Your task to perform on an android device: turn on javascript in the chrome app Image 0: 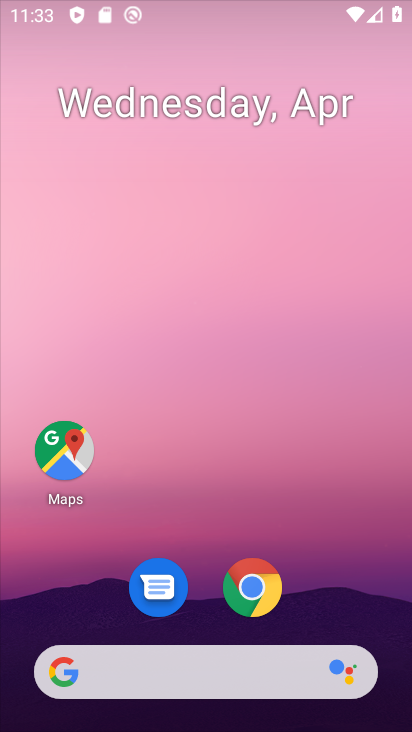
Step 0: drag from (301, 575) to (224, 86)
Your task to perform on an android device: turn on javascript in the chrome app Image 1: 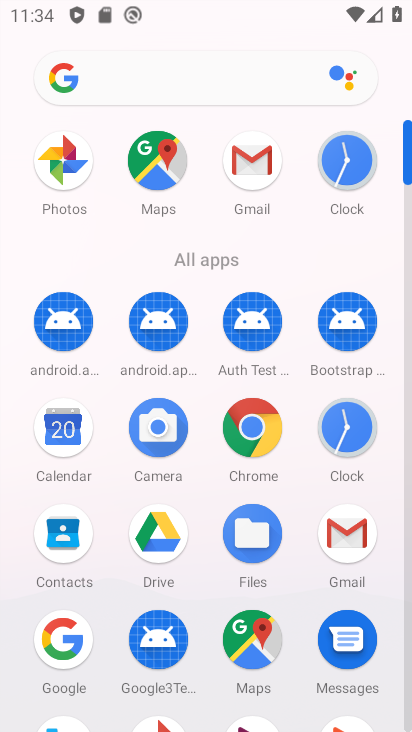
Step 1: click (250, 419)
Your task to perform on an android device: turn on javascript in the chrome app Image 2: 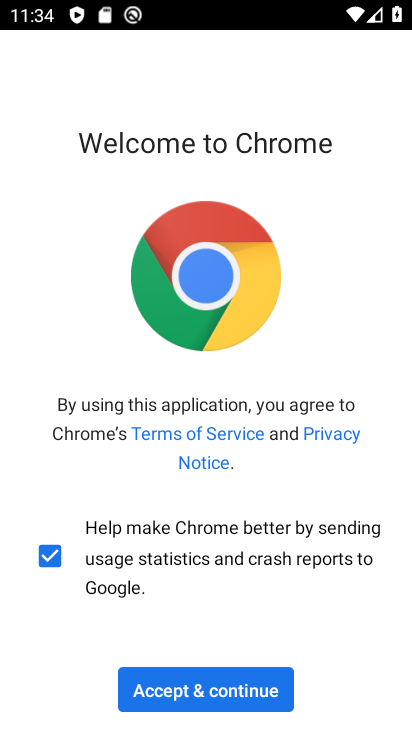
Step 2: click (261, 688)
Your task to perform on an android device: turn on javascript in the chrome app Image 3: 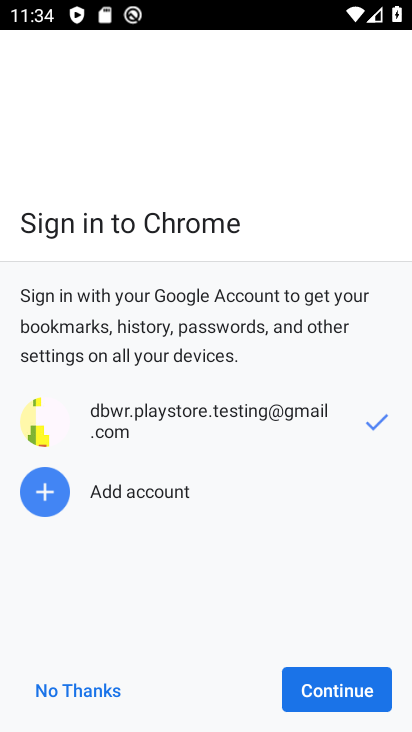
Step 3: click (340, 687)
Your task to perform on an android device: turn on javascript in the chrome app Image 4: 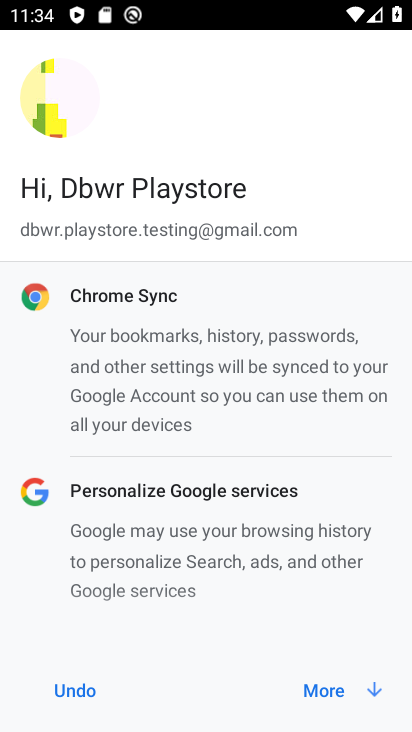
Step 4: click (340, 687)
Your task to perform on an android device: turn on javascript in the chrome app Image 5: 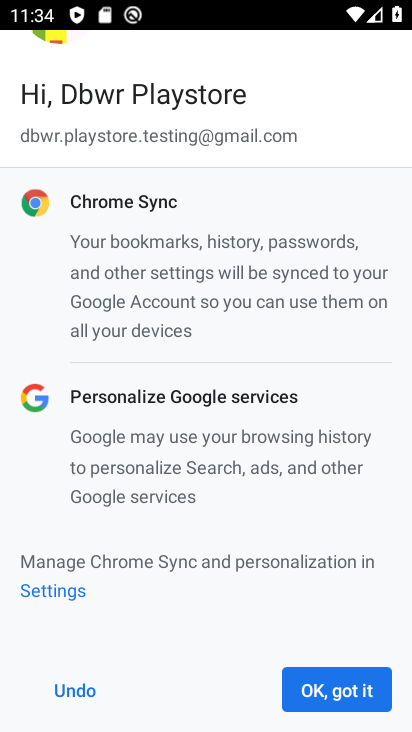
Step 5: click (340, 687)
Your task to perform on an android device: turn on javascript in the chrome app Image 6: 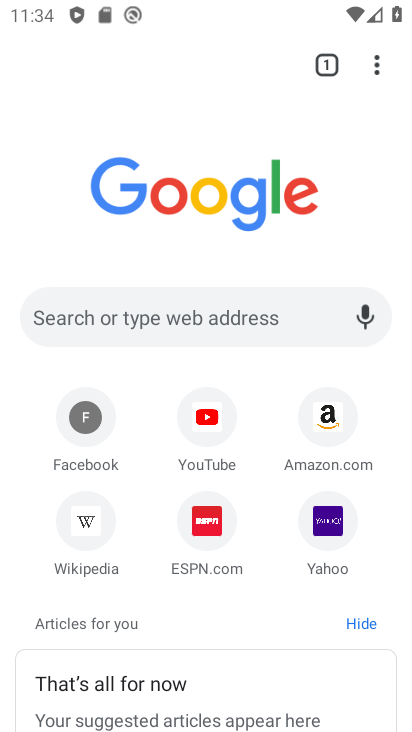
Step 6: click (382, 66)
Your task to perform on an android device: turn on javascript in the chrome app Image 7: 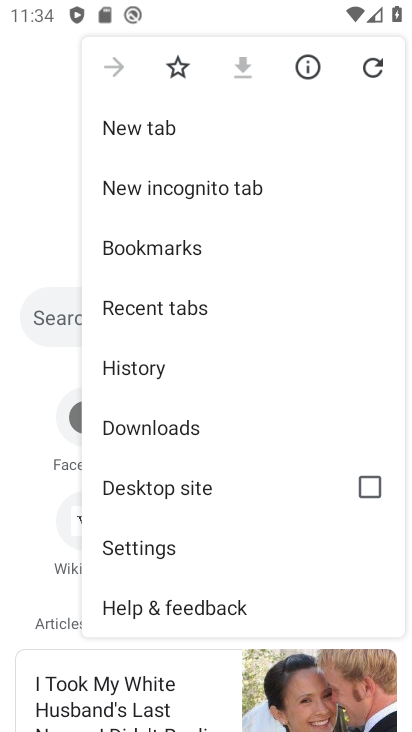
Step 7: drag from (238, 492) to (272, 328)
Your task to perform on an android device: turn on javascript in the chrome app Image 8: 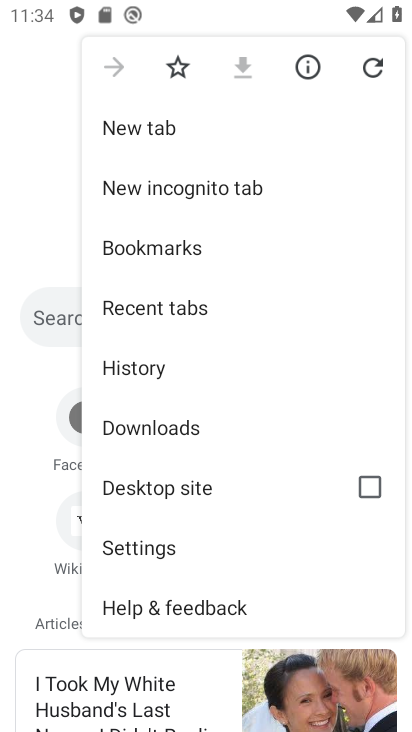
Step 8: click (205, 540)
Your task to perform on an android device: turn on javascript in the chrome app Image 9: 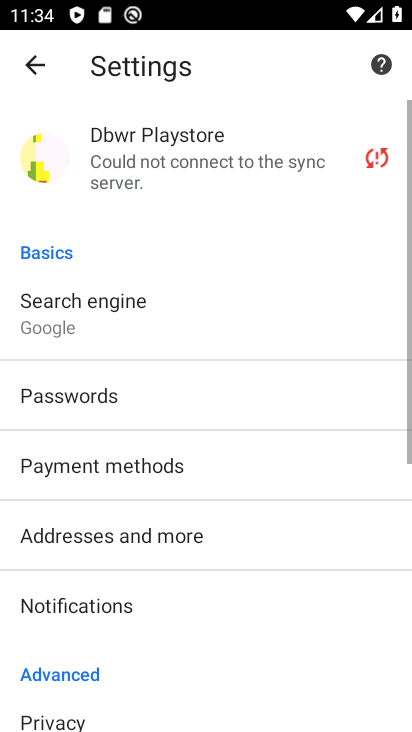
Step 9: drag from (205, 540) to (239, 199)
Your task to perform on an android device: turn on javascript in the chrome app Image 10: 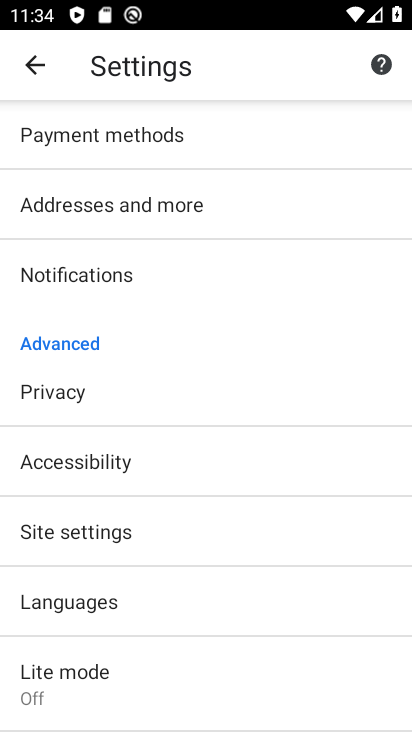
Step 10: click (301, 516)
Your task to perform on an android device: turn on javascript in the chrome app Image 11: 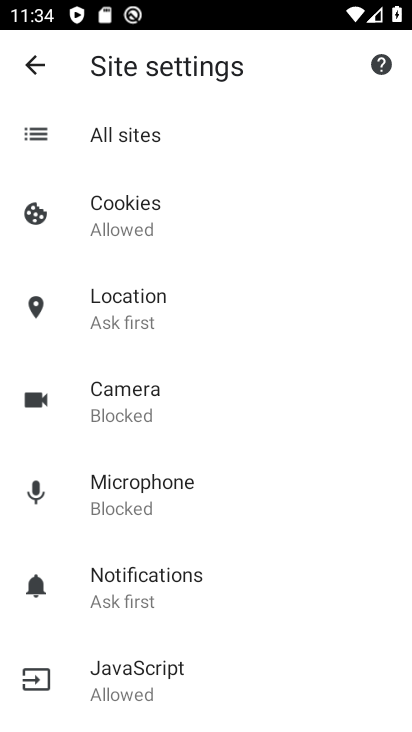
Step 11: click (209, 696)
Your task to perform on an android device: turn on javascript in the chrome app Image 12: 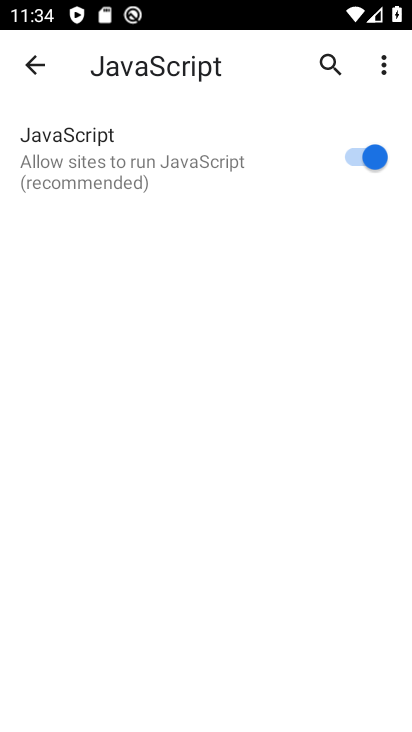
Step 12: task complete